Your task to perform on an android device: turn off notifications in google photos Image 0: 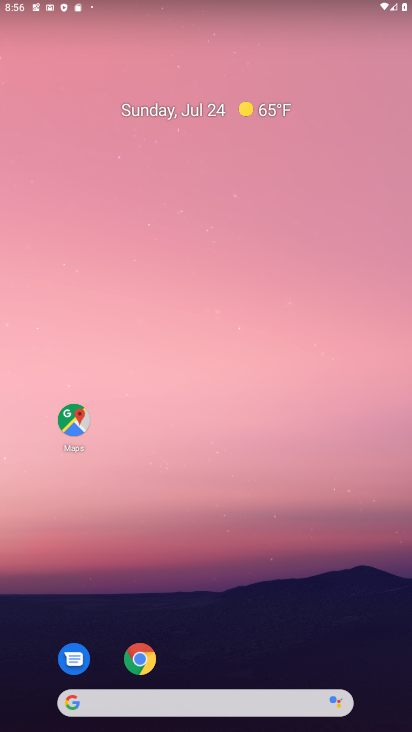
Step 0: drag from (251, 670) to (280, 2)
Your task to perform on an android device: turn off notifications in google photos Image 1: 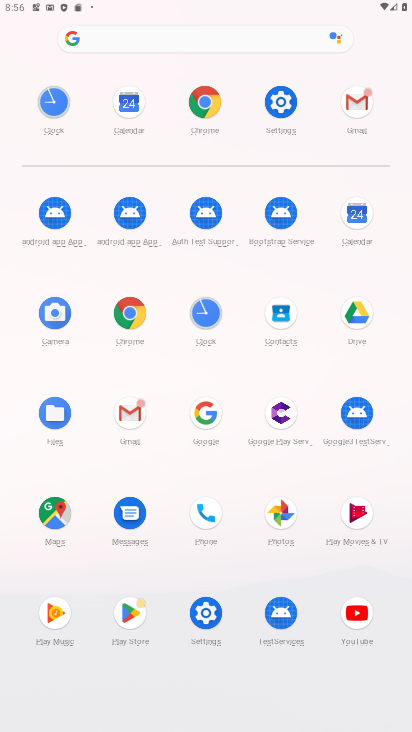
Step 1: click (279, 516)
Your task to perform on an android device: turn off notifications in google photos Image 2: 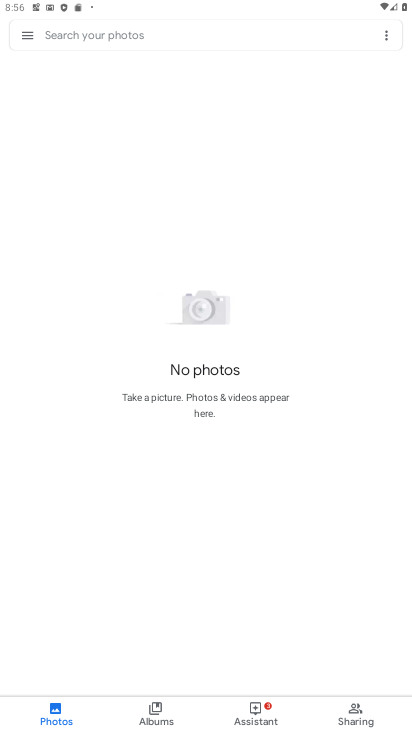
Step 2: click (24, 37)
Your task to perform on an android device: turn off notifications in google photos Image 3: 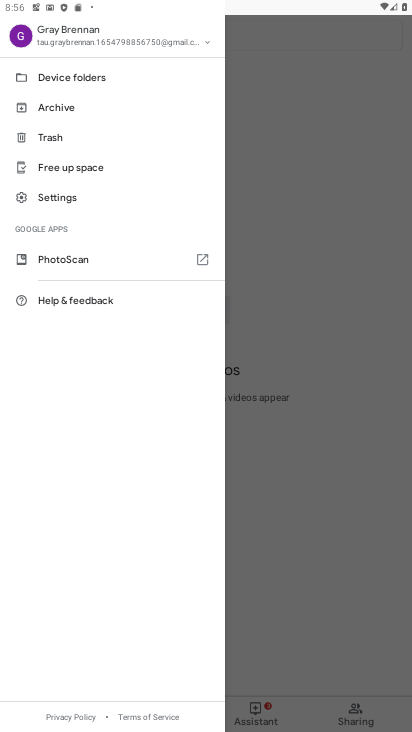
Step 3: click (44, 213)
Your task to perform on an android device: turn off notifications in google photos Image 4: 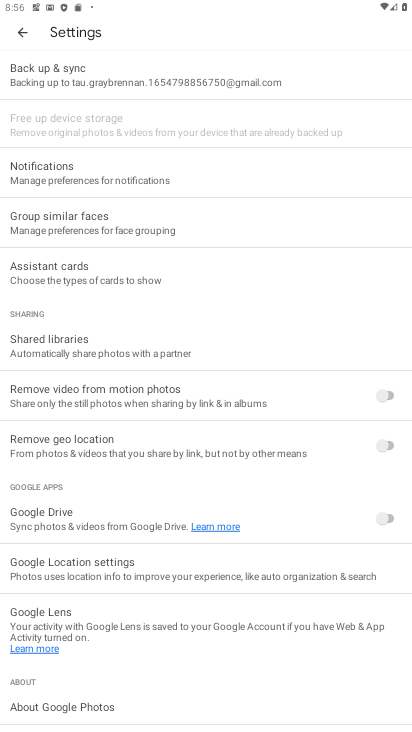
Step 4: click (62, 187)
Your task to perform on an android device: turn off notifications in google photos Image 5: 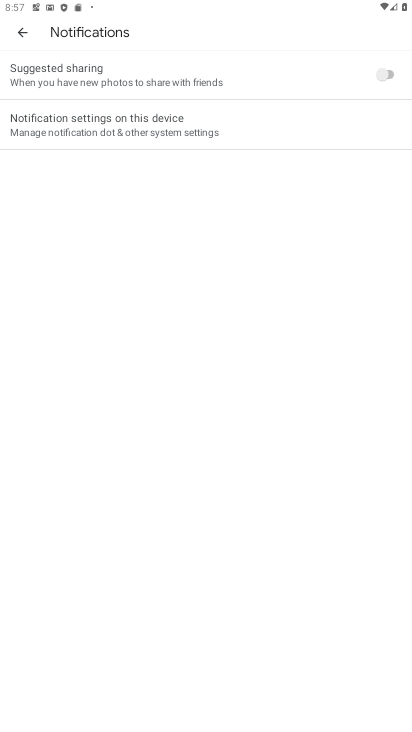
Step 5: click (133, 131)
Your task to perform on an android device: turn off notifications in google photos Image 6: 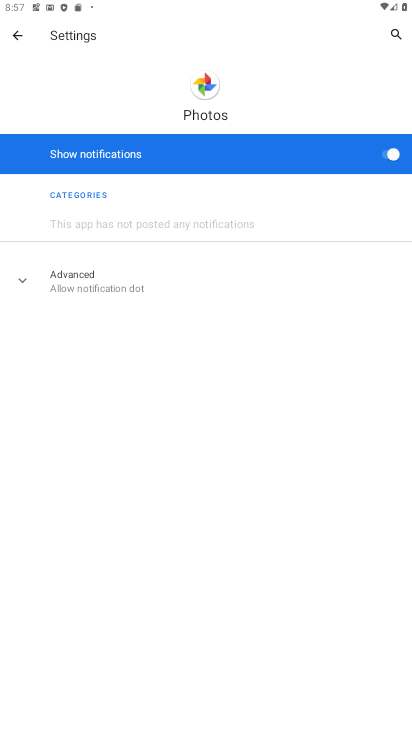
Step 6: click (394, 162)
Your task to perform on an android device: turn off notifications in google photos Image 7: 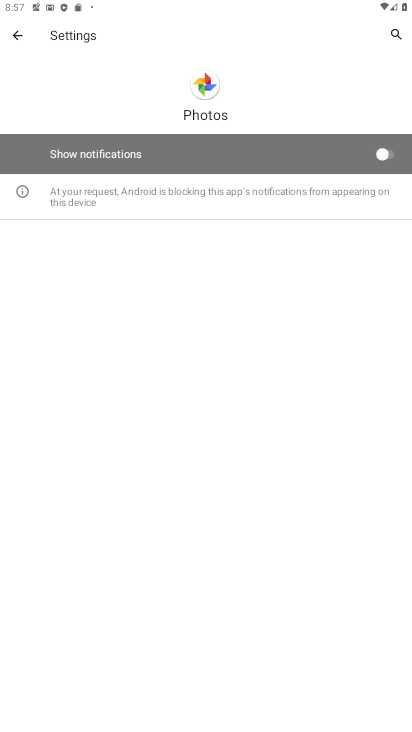
Step 7: task complete